Your task to perform on an android device: Go to location settings Image 0: 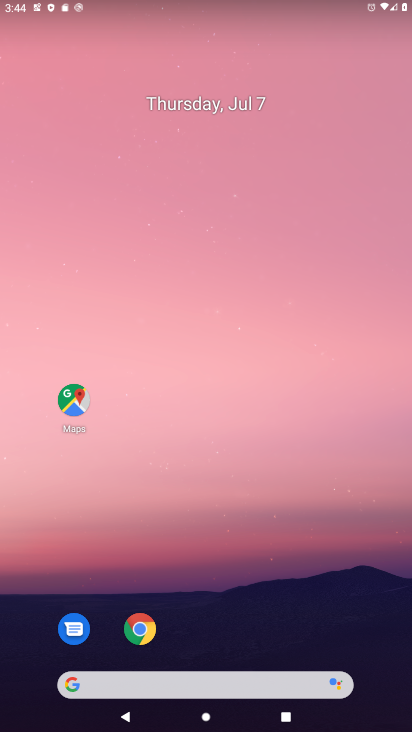
Step 0: drag from (150, 8) to (186, 444)
Your task to perform on an android device: Go to location settings Image 1: 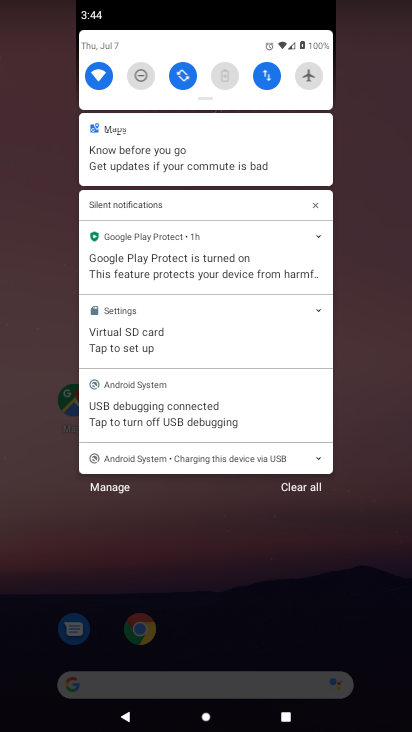
Step 1: drag from (207, 43) to (223, 413)
Your task to perform on an android device: Go to location settings Image 2: 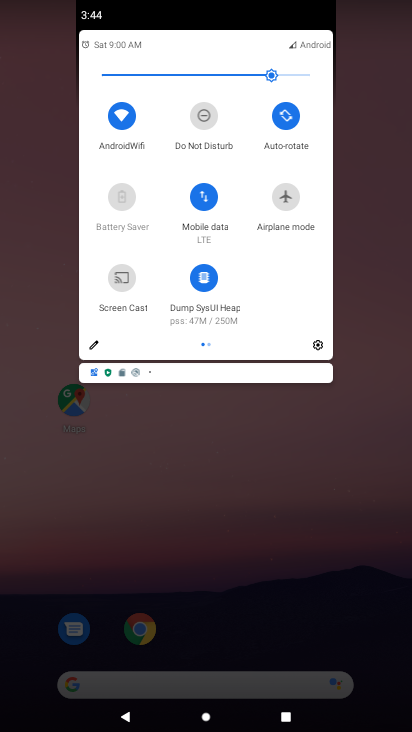
Step 2: click (319, 346)
Your task to perform on an android device: Go to location settings Image 3: 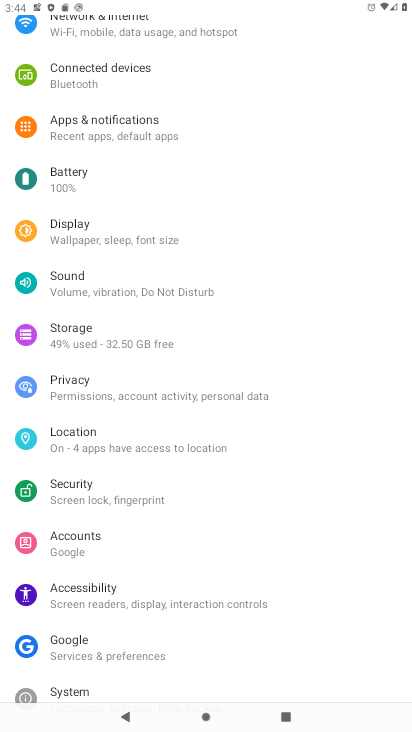
Step 3: click (73, 435)
Your task to perform on an android device: Go to location settings Image 4: 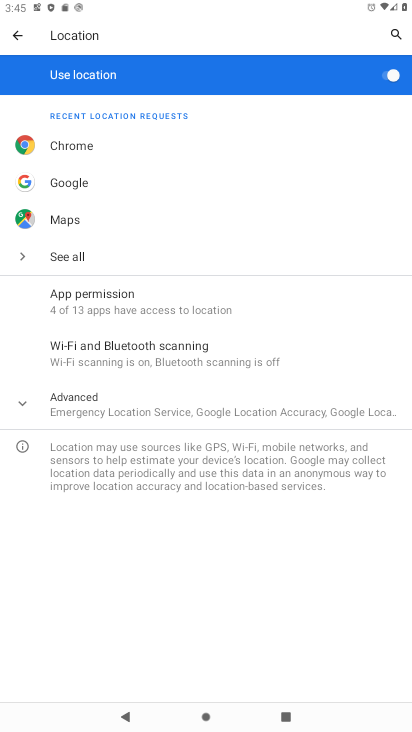
Step 4: task complete